Your task to perform on an android device: Open Chrome and go to settings Image 0: 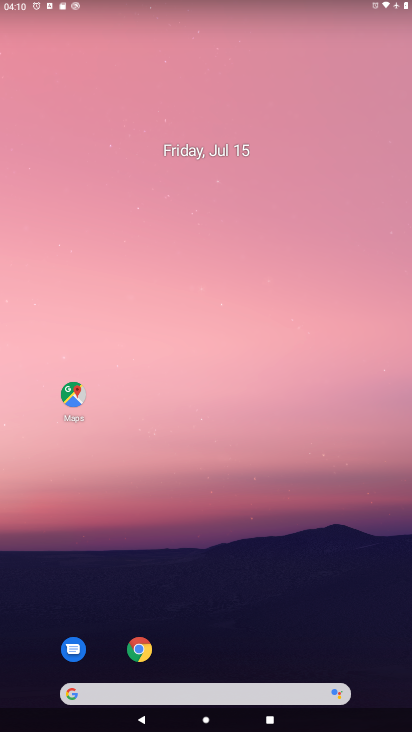
Step 0: click (142, 650)
Your task to perform on an android device: Open Chrome and go to settings Image 1: 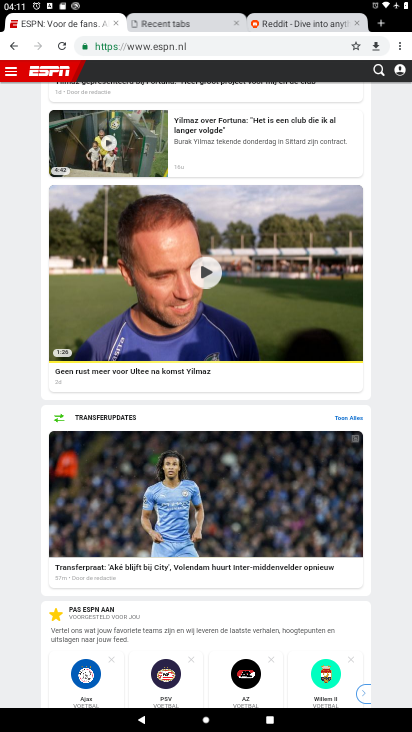
Step 1: click (401, 51)
Your task to perform on an android device: Open Chrome and go to settings Image 2: 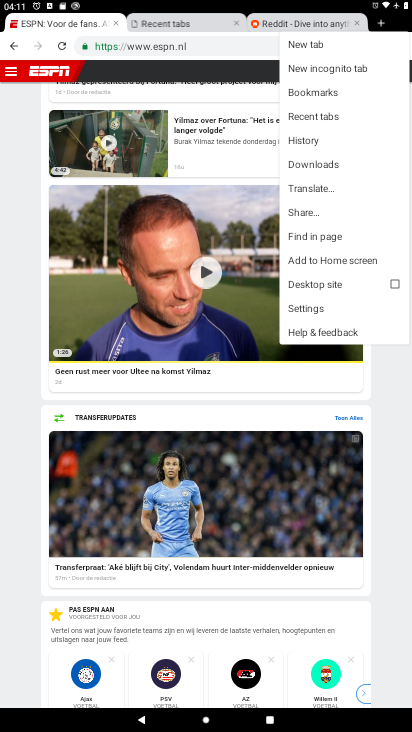
Step 2: click (302, 308)
Your task to perform on an android device: Open Chrome and go to settings Image 3: 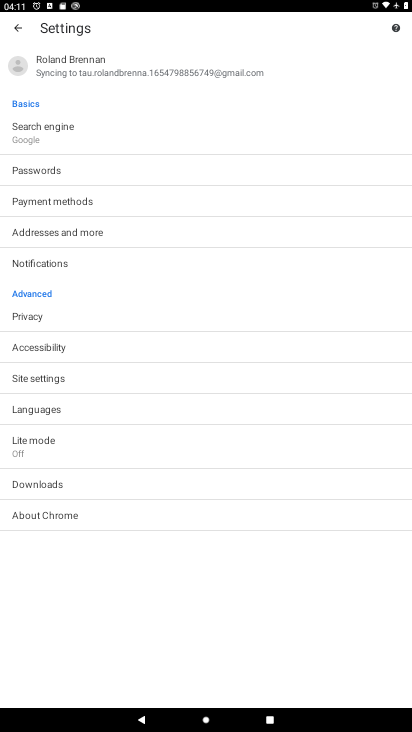
Step 3: task complete